Your task to perform on an android device: install app "Skype" Image 0: 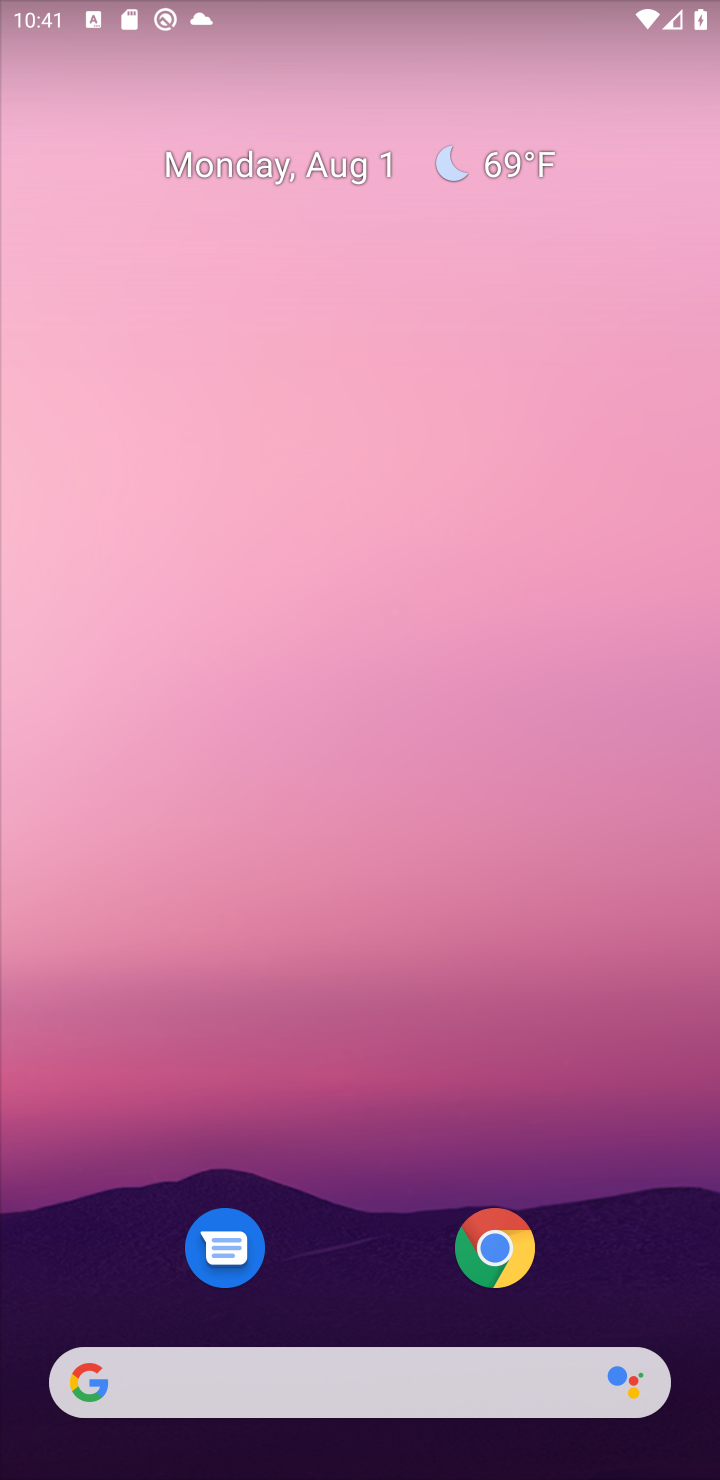
Step 0: drag from (402, 935) to (456, 108)
Your task to perform on an android device: install app "Skype" Image 1: 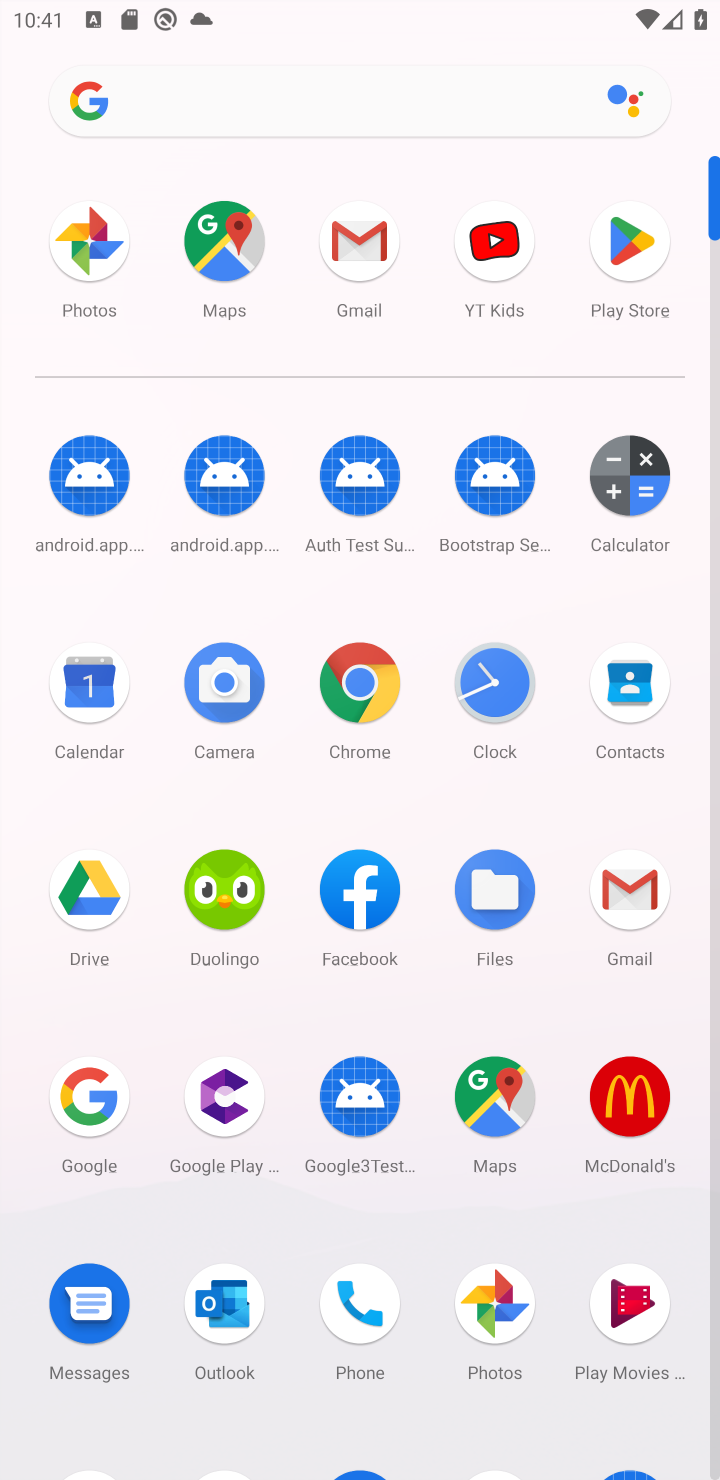
Step 1: click (636, 234)
Your task to perform on an android device: install app "Skype" Image 2: 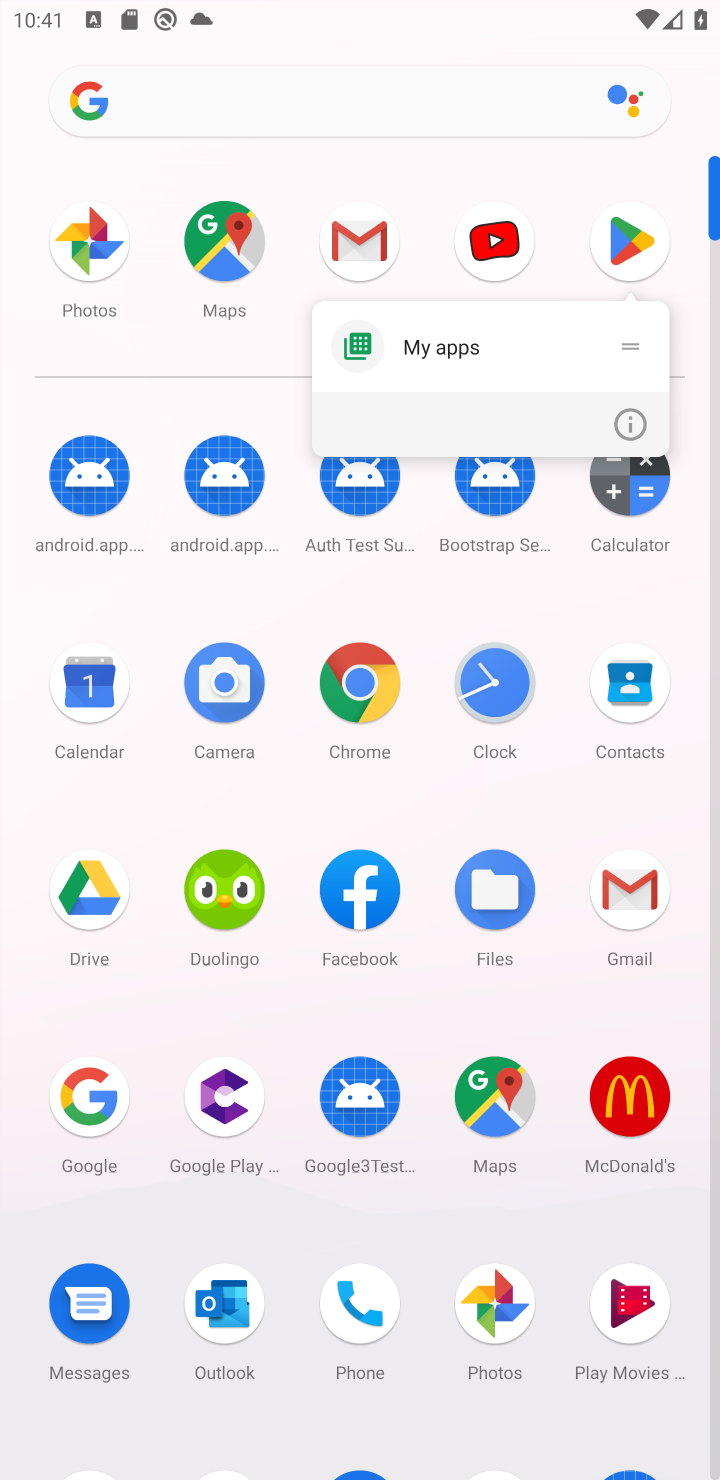
Step 2: click (304, 1192)
Your task to perform on an android device: install app "Skype" Image 3: 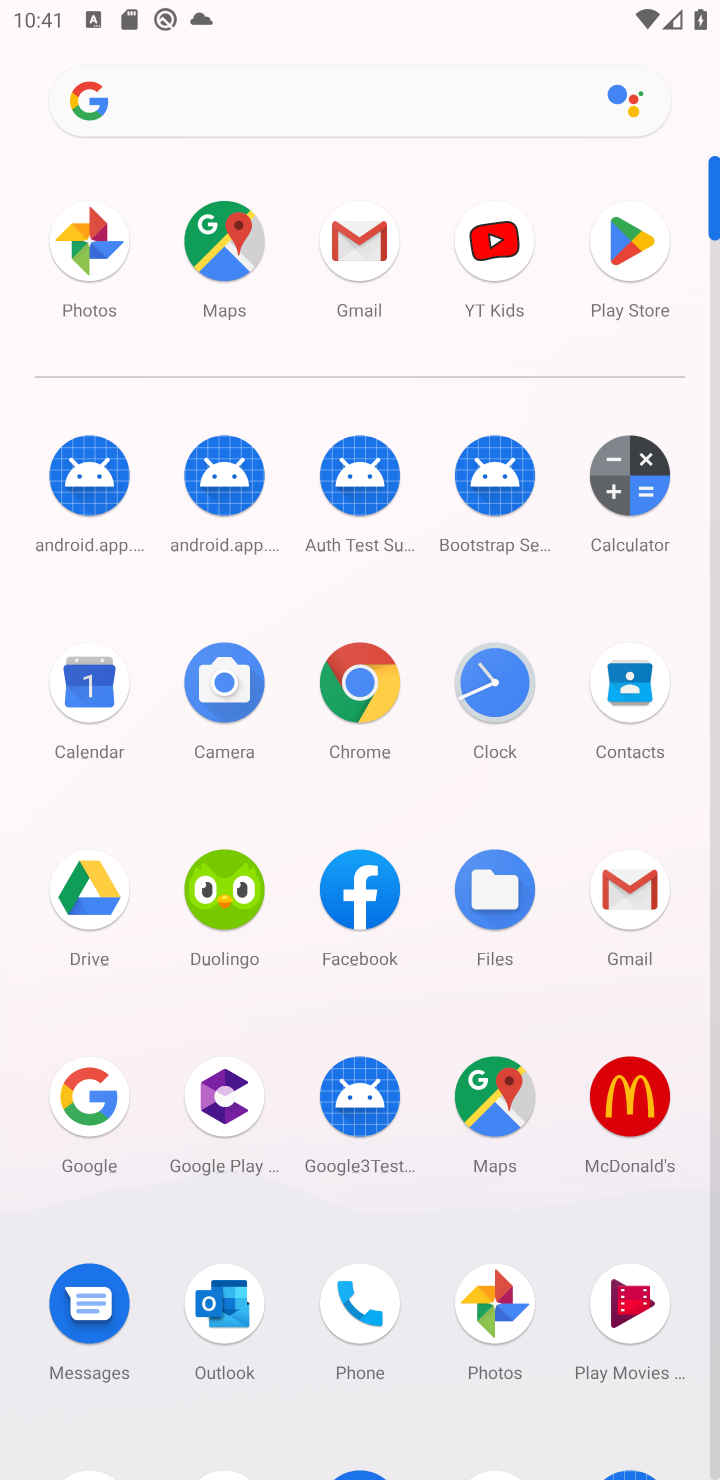
Step 3: drag from (283, 1225) to (304, 546)
Your task to perform on an android device: install app "Skype" Image 4: 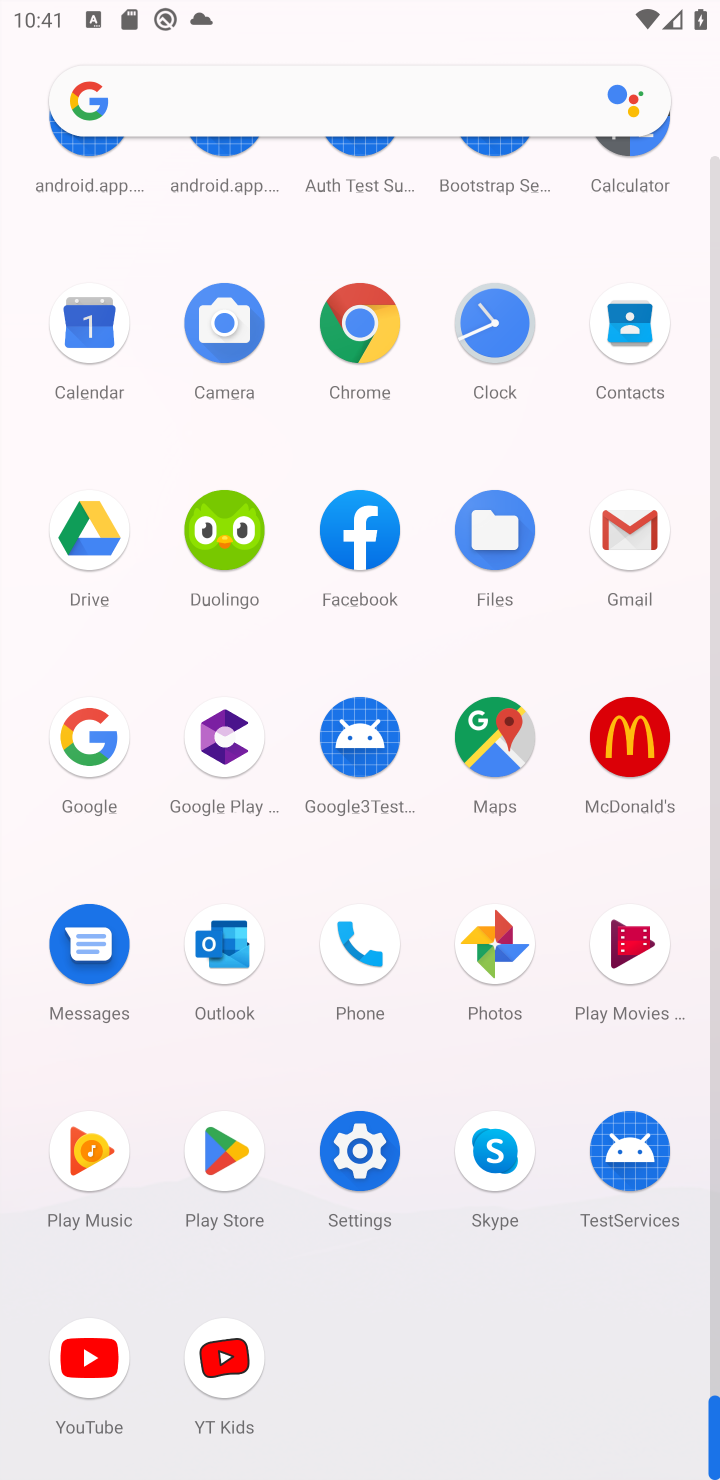
Step 4: click (217, 1132)
Your task to perform on an android device: install app "Skype" Image 5: 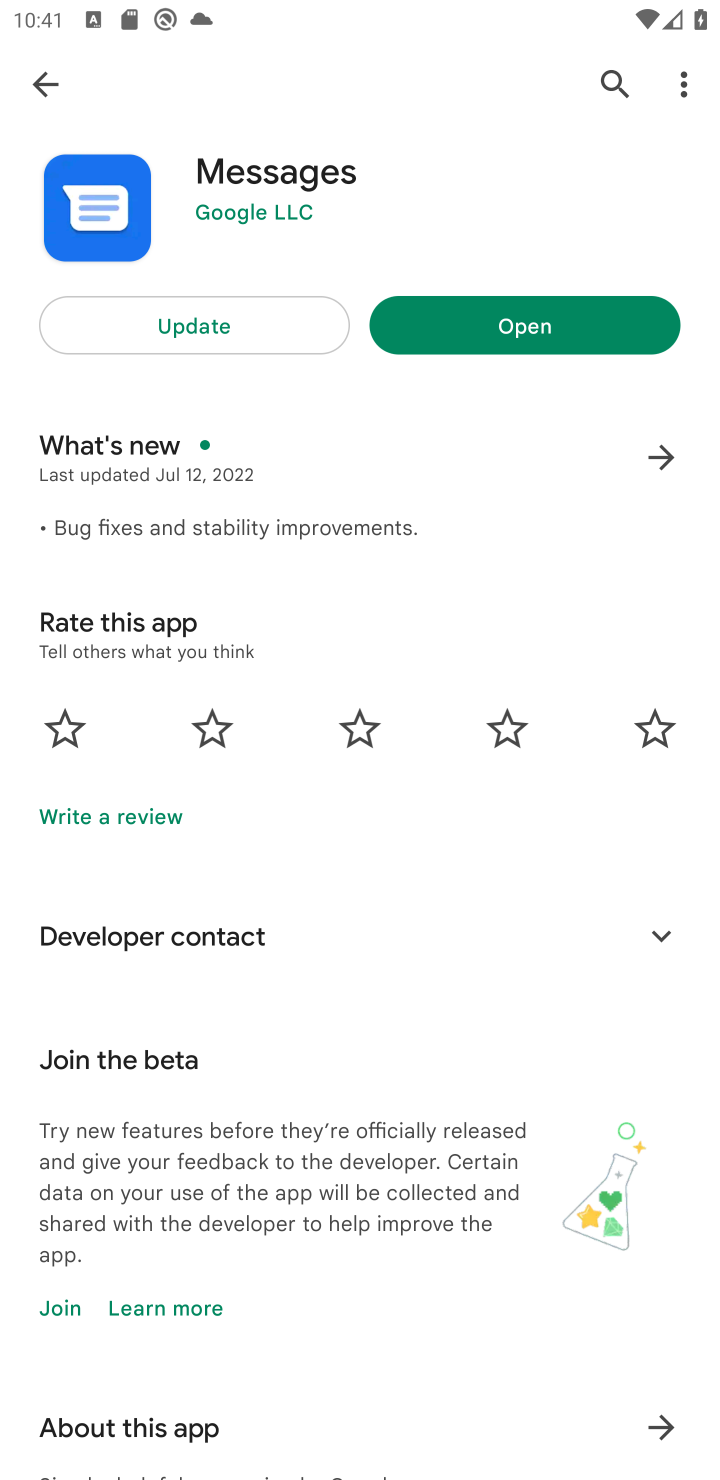
Step 5: click (614, 74)
Your task to perform on an android device: install app "Skype" Image 6: 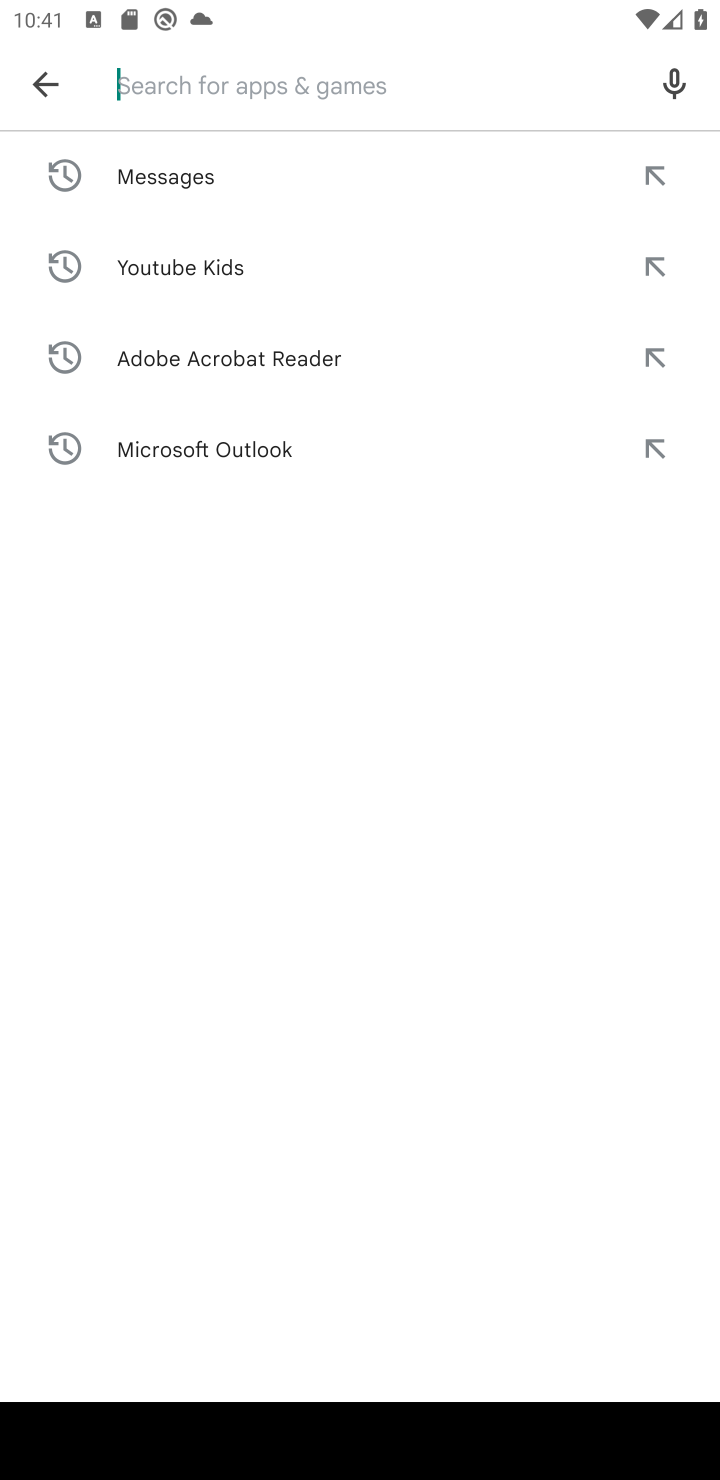
Step 6: type "Skype"
Your task to perform on an android device: install app "Skype" Image 7: 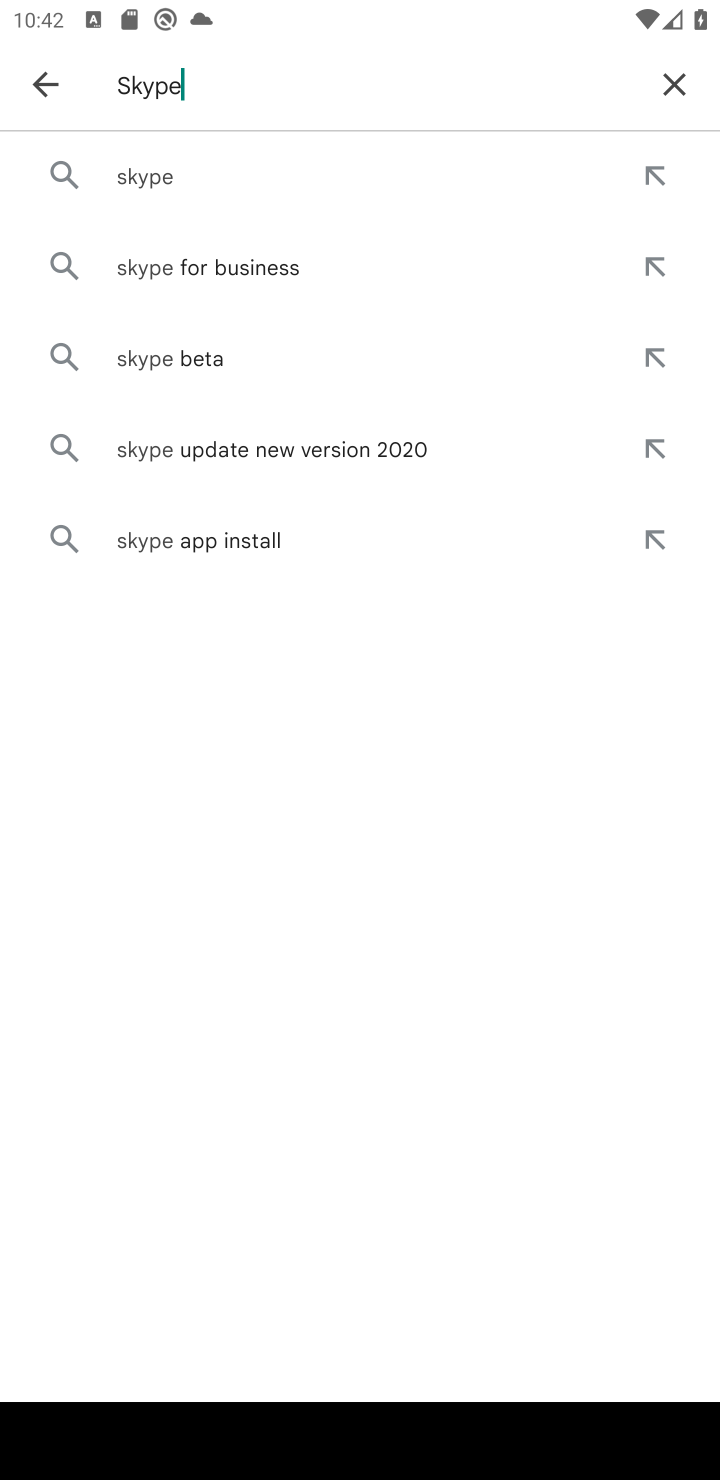
Step 7: press enter
Your task to perform on an android device: install app "Skype" Image 8: 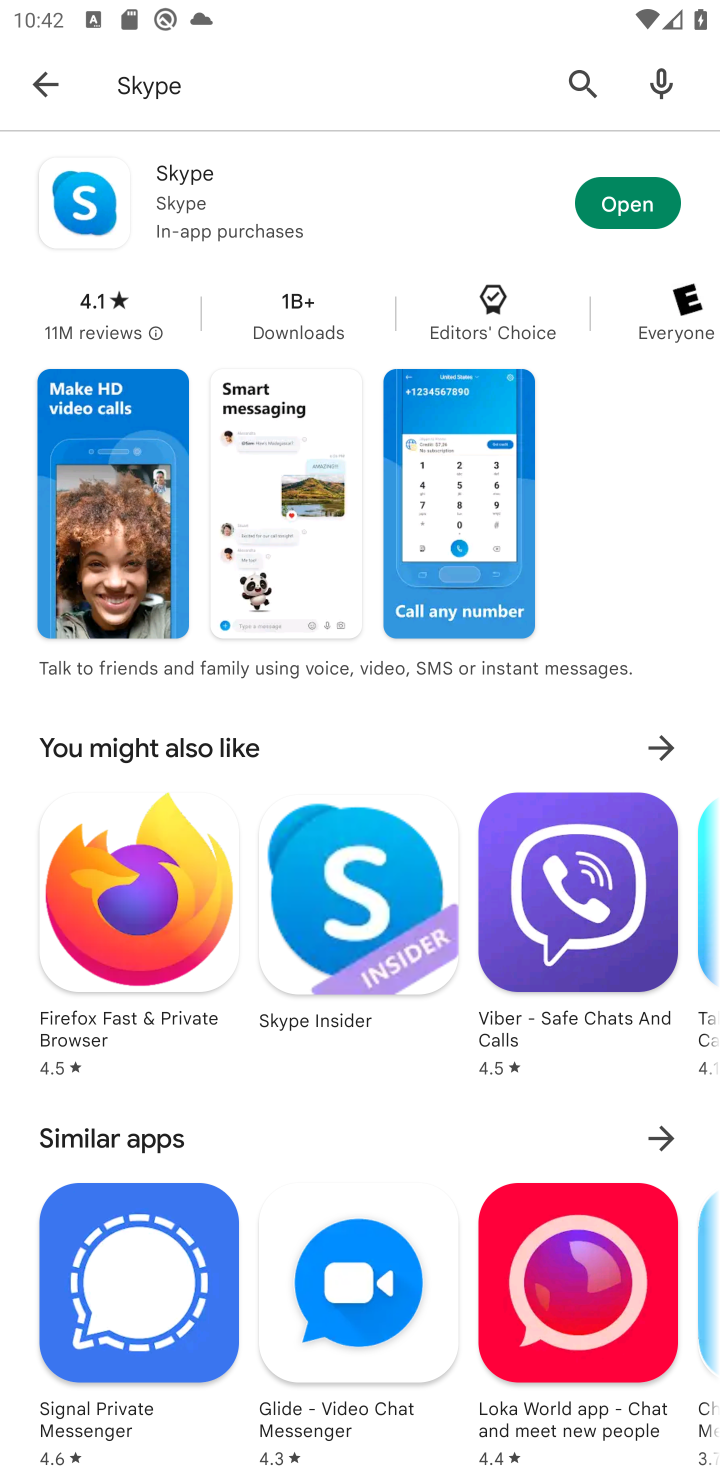
Step 8: task complete